Your task to perform on an android device: delete a single message in the gmail app Image 0: 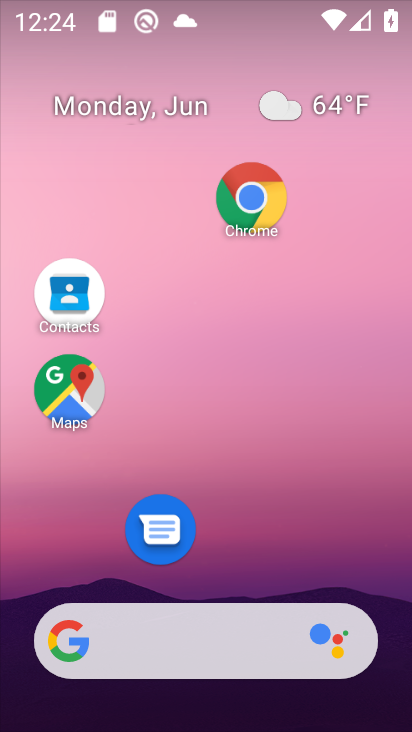
Step 0: drag from (251, 556) to (397, 258)
Your task to perform on an android device: delete a single message in the gmail app Image 1: 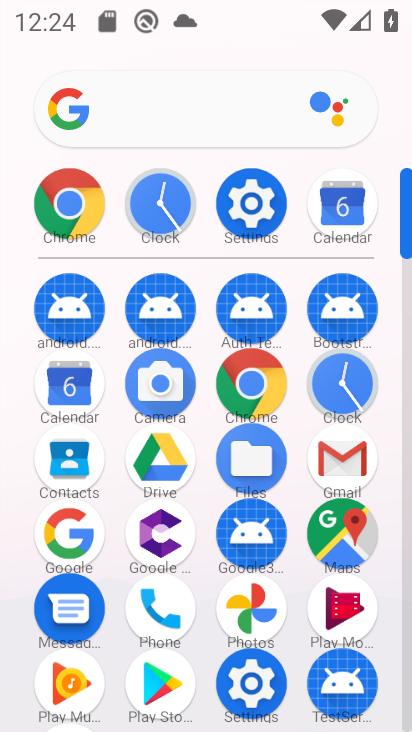
Step 1: click (347, 466)
Your task to perform on an android device: delete a single message in the gmail app Image 2: 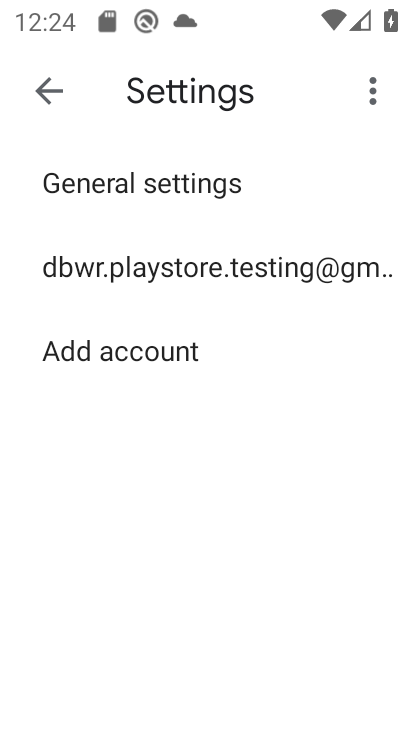
Step 2: click (56, 79)
Your task to perform on an android device: delete a single message in the gmail app Image 3: 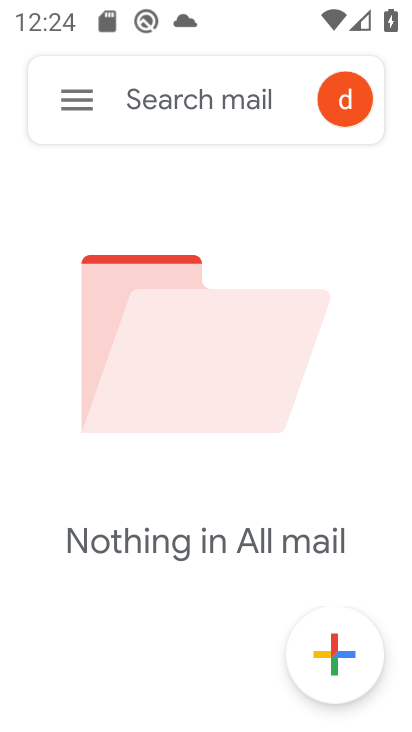
Step 3: task complete